Your task to perform on an android device: snooze an email in the gmail app Image 0: 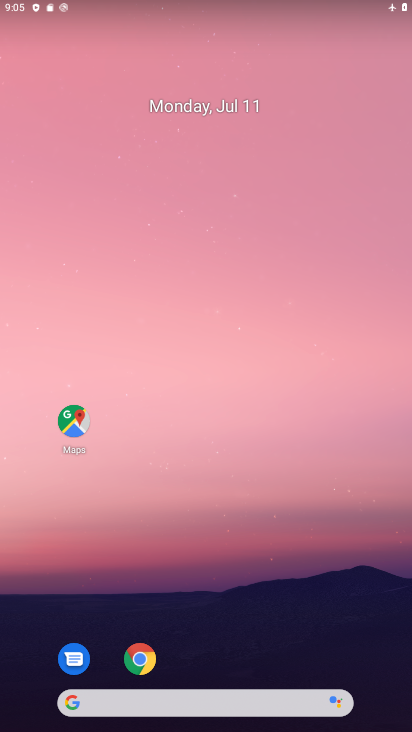
Step 0: drag from (235, 673) to (230, 268)
Your task to perform on an android device: snooze an email in the gmail app Image 1: 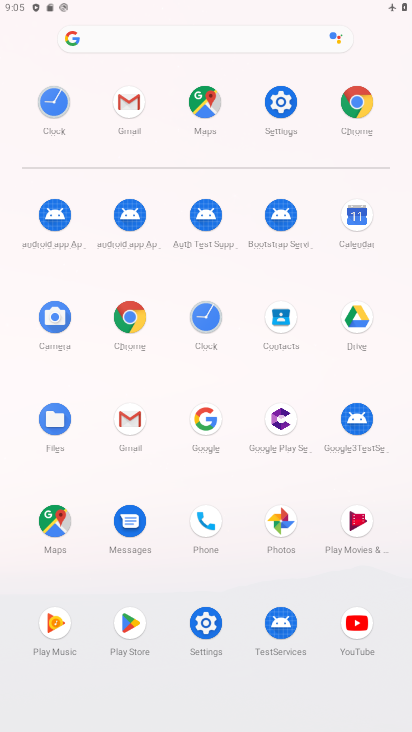
Step 1: click (133, 110)
Your task to perform on an android device: snooze an email in the gmail app Image 2: 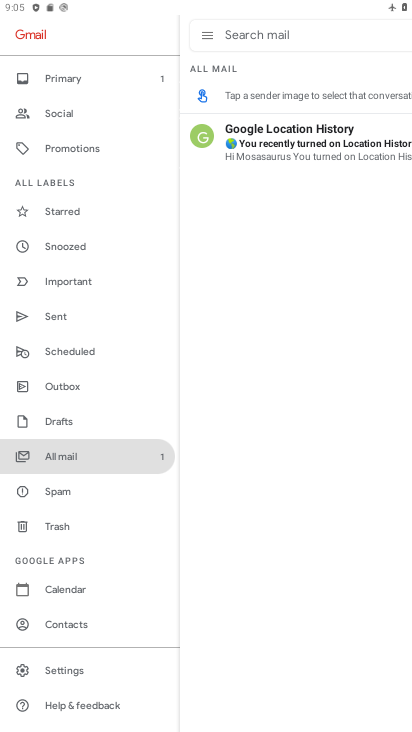
Step 2: click (262, 131)
Your task to perform on an android device: snooze an email in the gmail app Image 3: 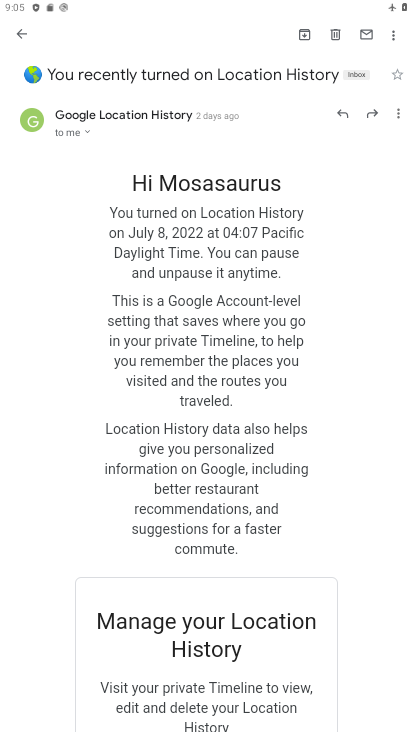
Step 3: click (391, 38)
Your task to perform on an android device: snooze an email in the gmail app Image 4: 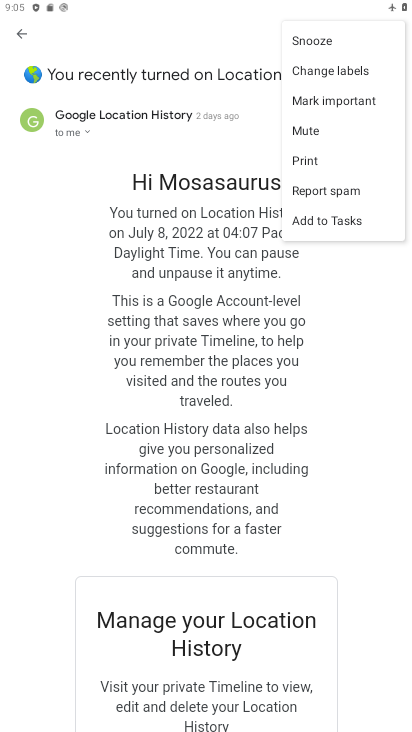
Step 4: click (298, 42)
Your task to perform on an android device: snooze an email in the gmail app Image 5: 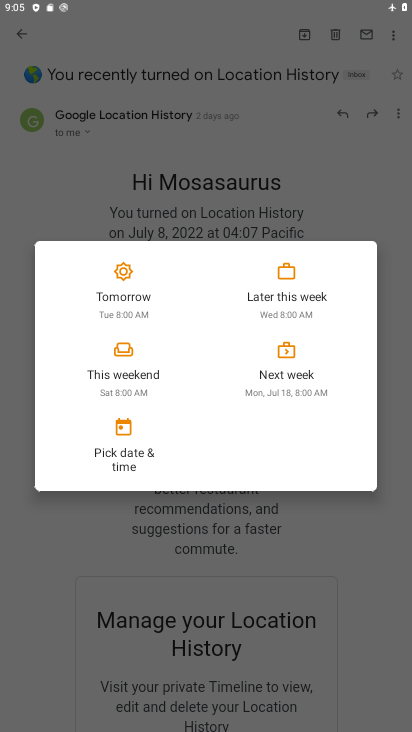
Step 5: click (134, 302)
Your task to perform on an android device: snooze an email in the gmail app Image 6: 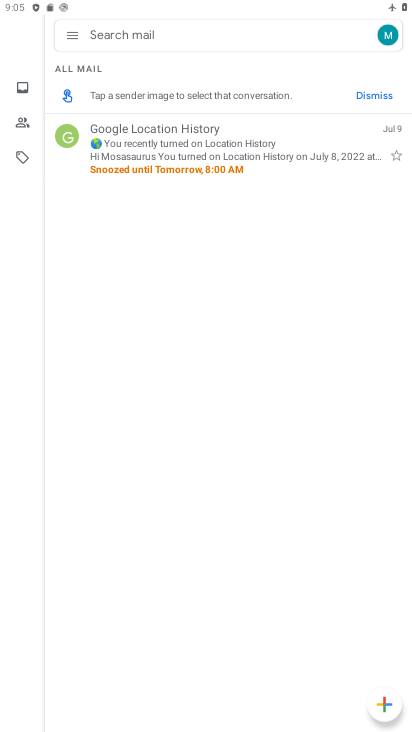
Step 6: task complete